Your task to perform on an android device: open app "PUBG MOBILE" (install if not already installed) and enter user name: "phenomenologically@gmail.com" and password: "artillery" Image 0: 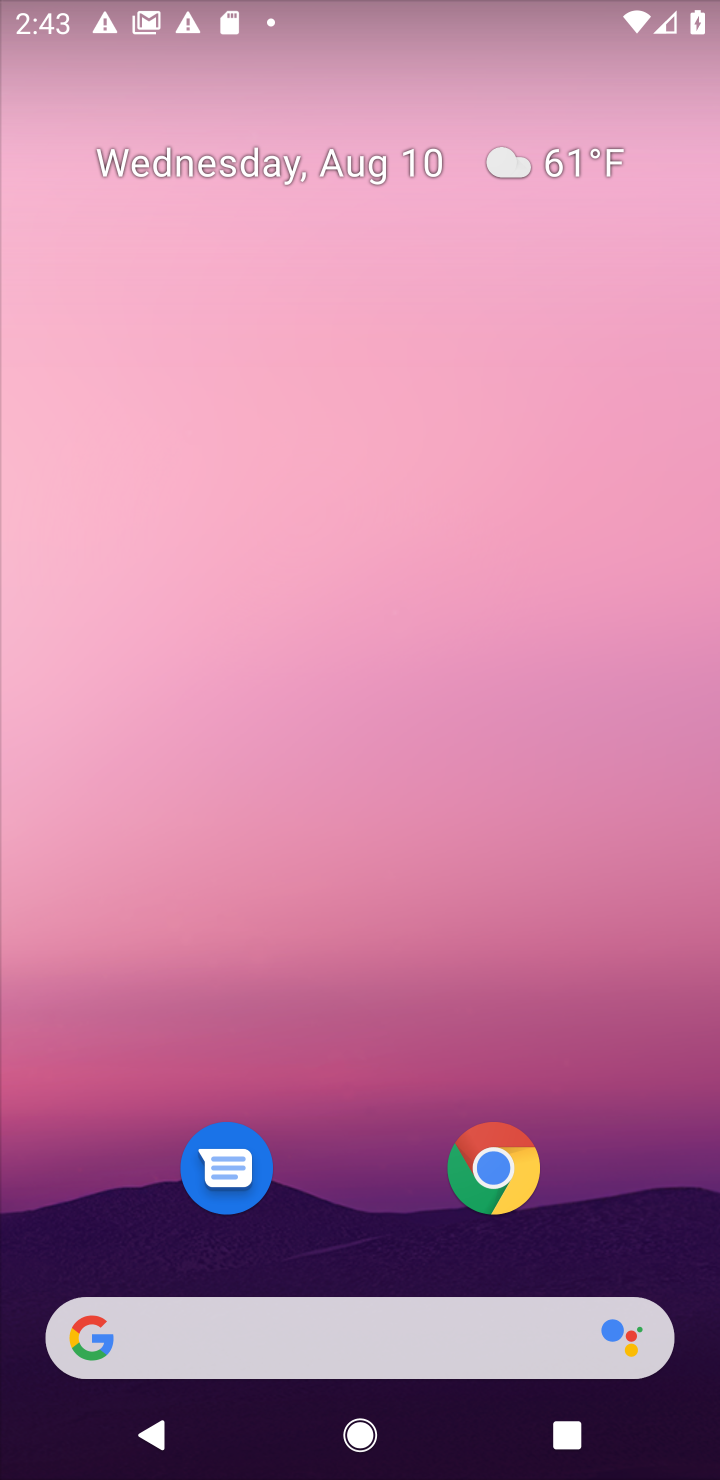
Step 0: drag from (289, 1341) to (415, 152)
Your task to perform on an android device: open app "PUBG MOBILE" (install if not already installed) and enter user name: "phenomenologically@gmail.com" and password: "artillery" Image 1: 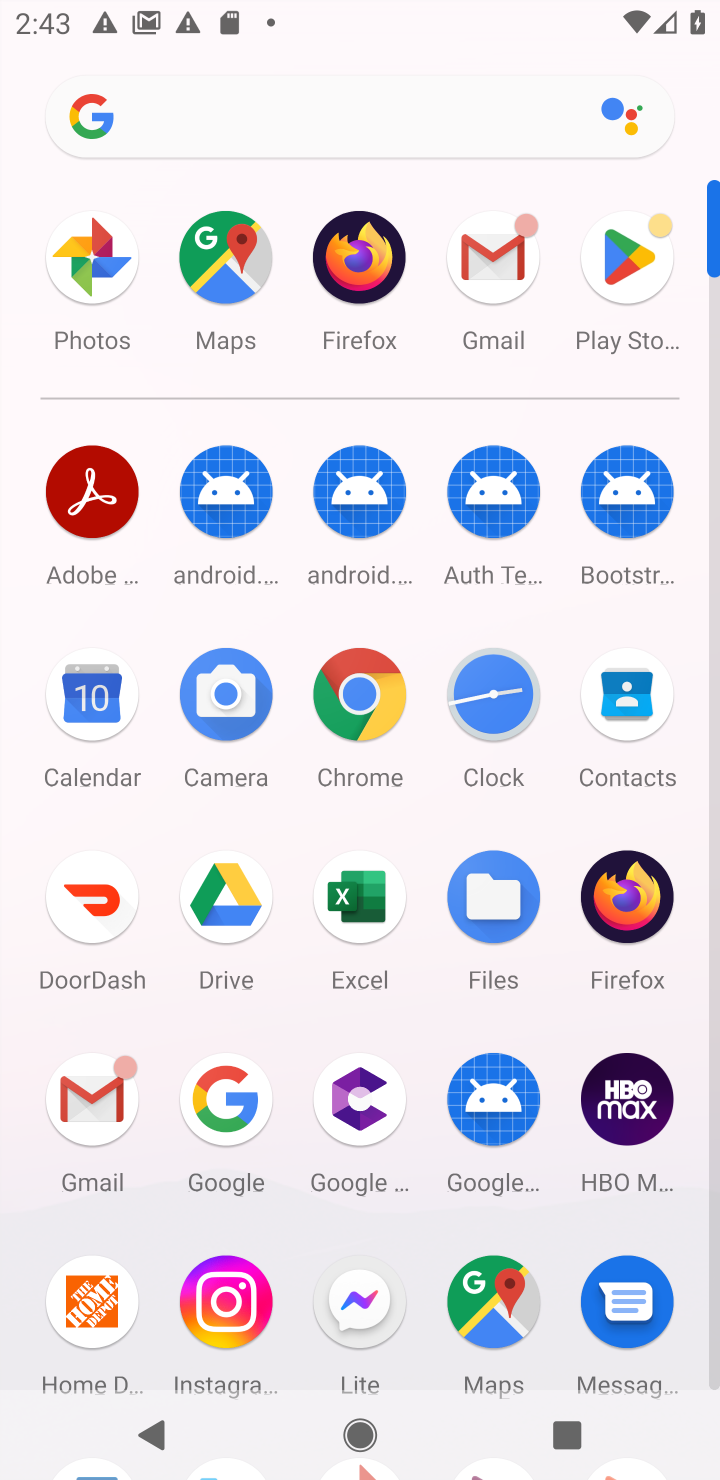
Step 1: click (632, 267)
Your task to perform on an android device: open app "PUBG MOBILE" (install if not already installed) and enter user name: "phenomenologically@gmail.com" and password: "artillery" Image 2: 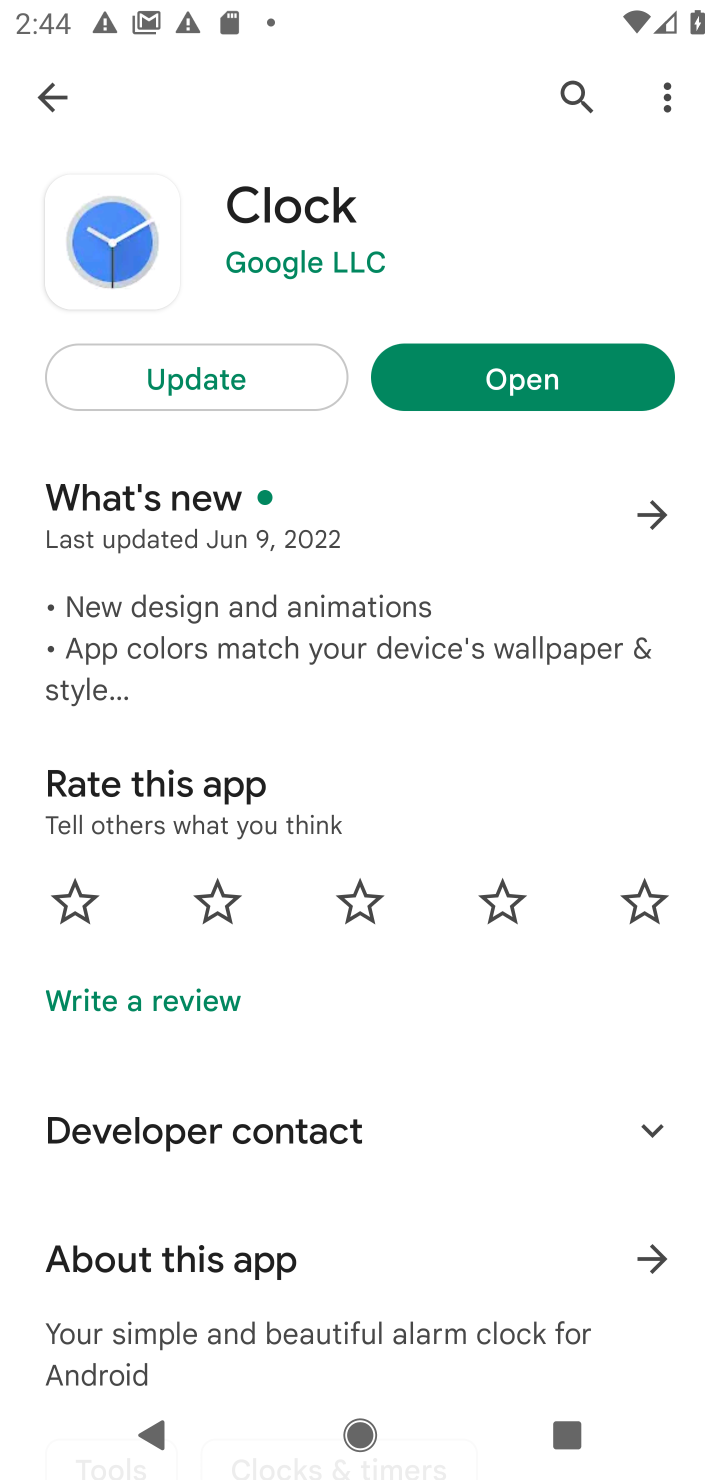
Step 2: press back button
Your task to perform on an android device: open app "PUBG MOBILE" (install if not already installed) and enter user name: "phenomenologically@gmail.com" and password: "artillery" Image 3: 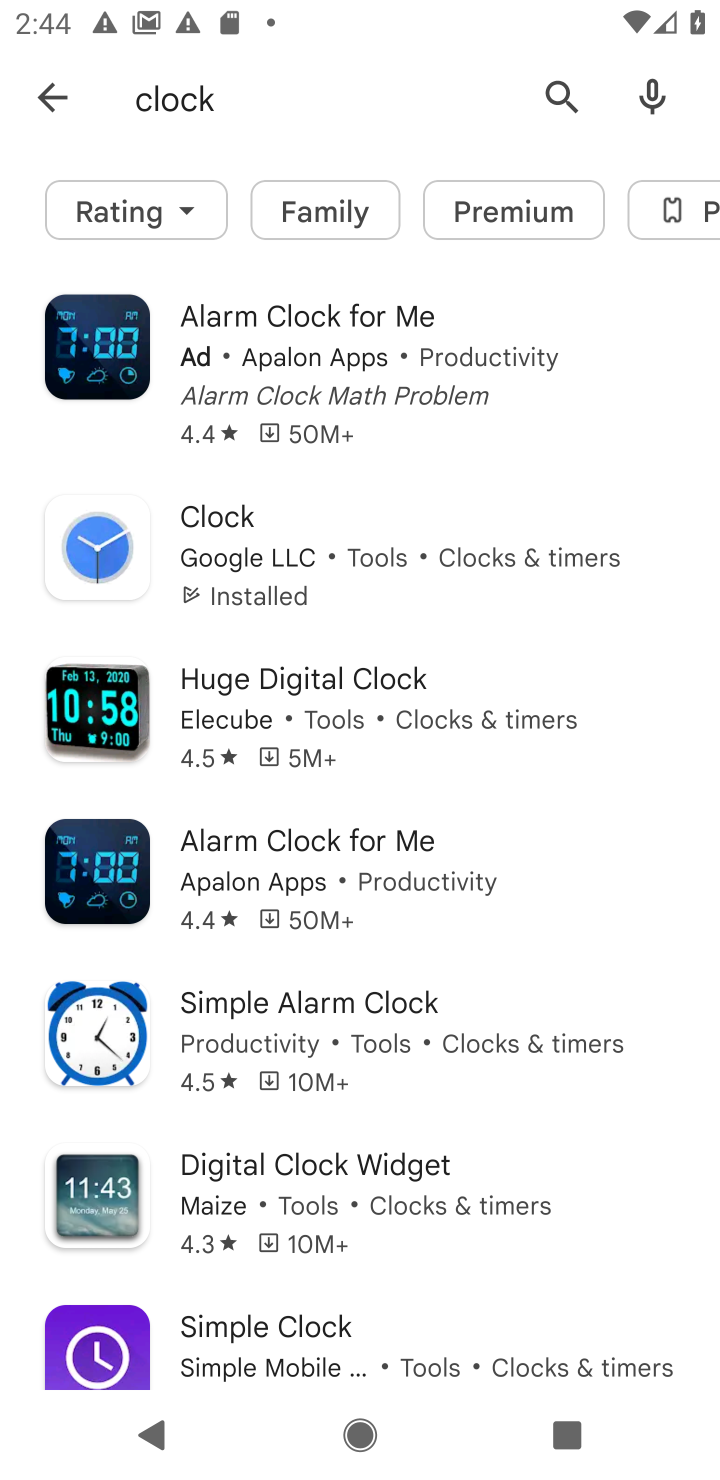
Step 3: press back button
Your task to perform on an android device: open app "PUBG MOBILE" (install if not already installed) and enter user name: "phenomenologically@gmail.com" and password: "artillery" Image 4: 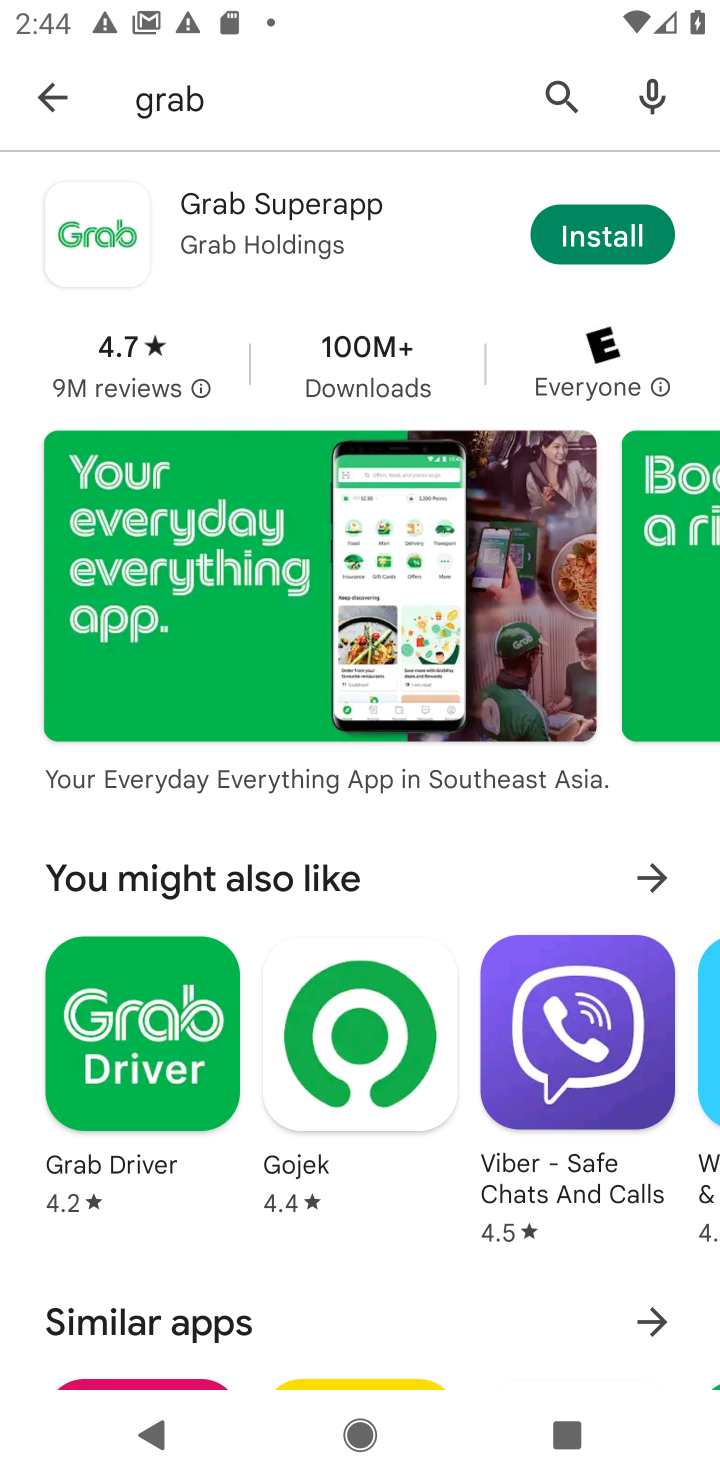
Step 4: press back button
Your task to perform on an android device: open app "PUBG MOBILE" (install if not already installed) and enter user name: "phenomenologically@gmail.com" and password: "artillery" Image 5: 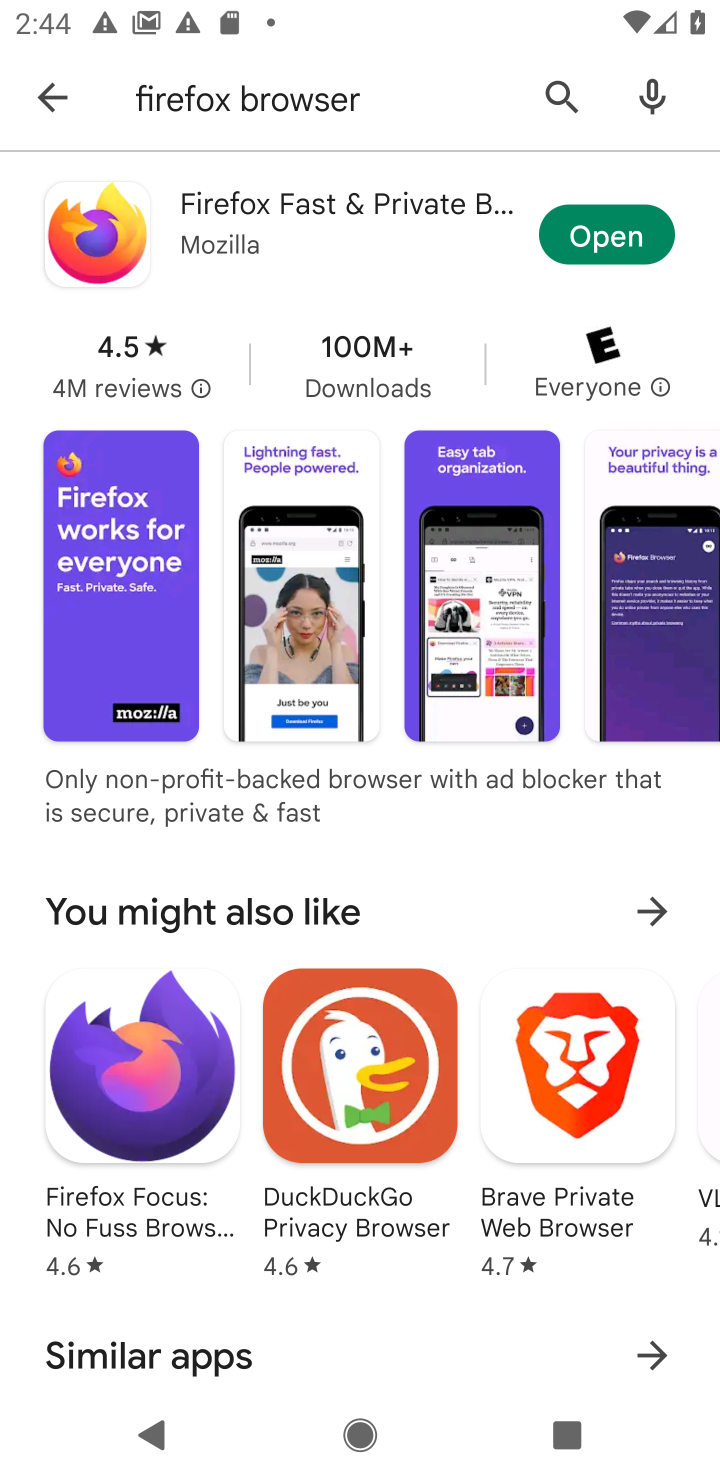
Step 5: press back button
Your task to perform on an android device: open app "PUBG MOBILE" (install if not already installed) and enter user name: "phenomenologically@gmail.com" and password: "artillery" Image 6: 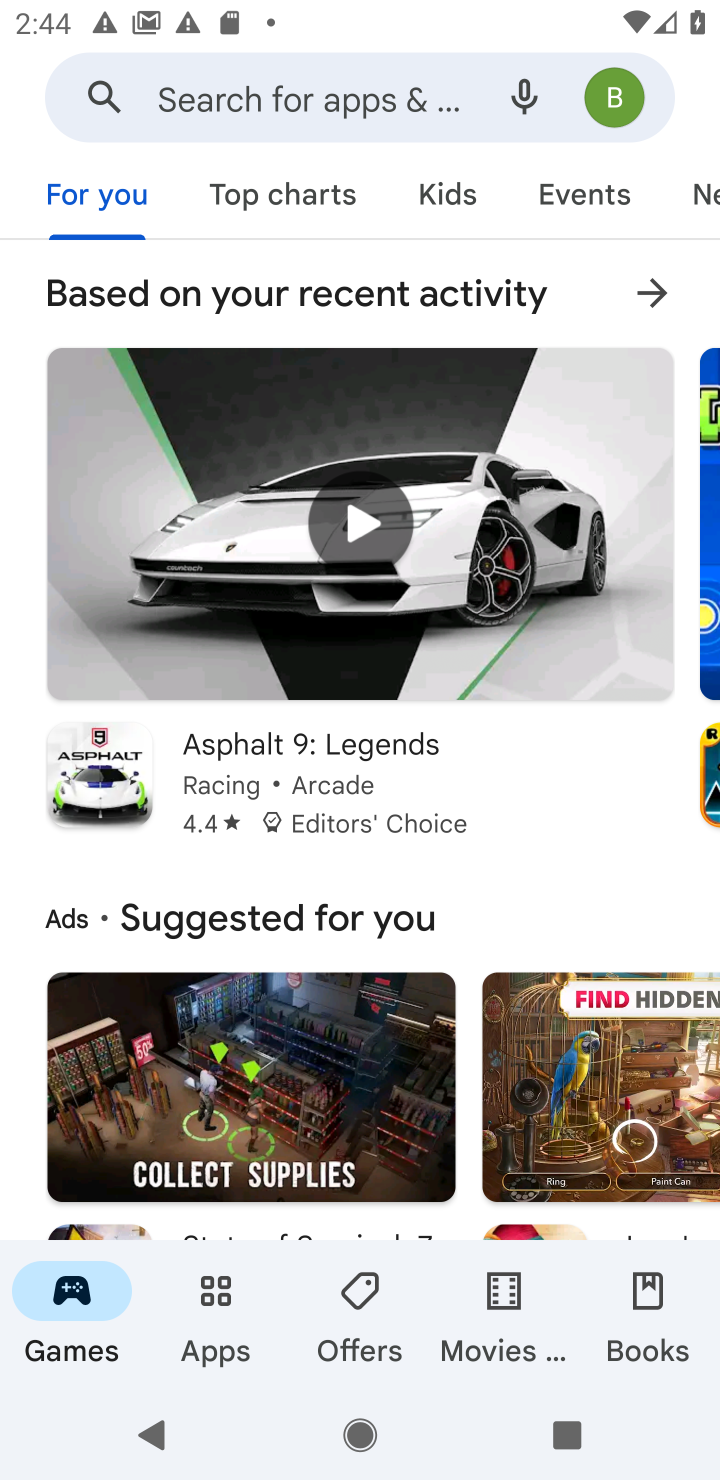
Step 6: click (300, 110)
Your task to perform on an android device: open app "PUBG MOBILE" (install if not already installed) and enter user name: "phenomenologically@gmail.com" and password: "artillery" Image 7: 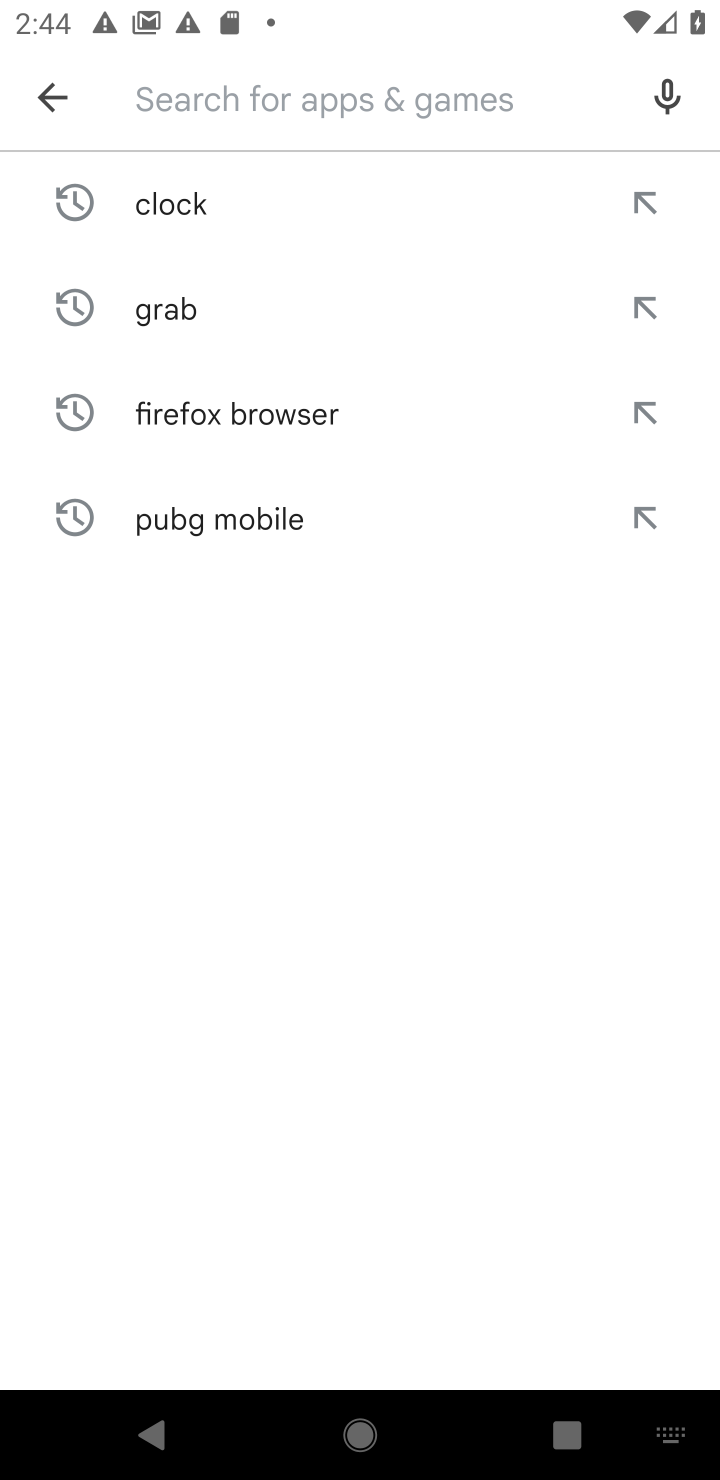
Step 7: type "PUBG MOBILE"
Your task to perform on an android device: open app "PUBG MOBILE" (install if not already installed) and enter user name: "phenomenologically@gmail.com" and password: "artillery" Image 8: 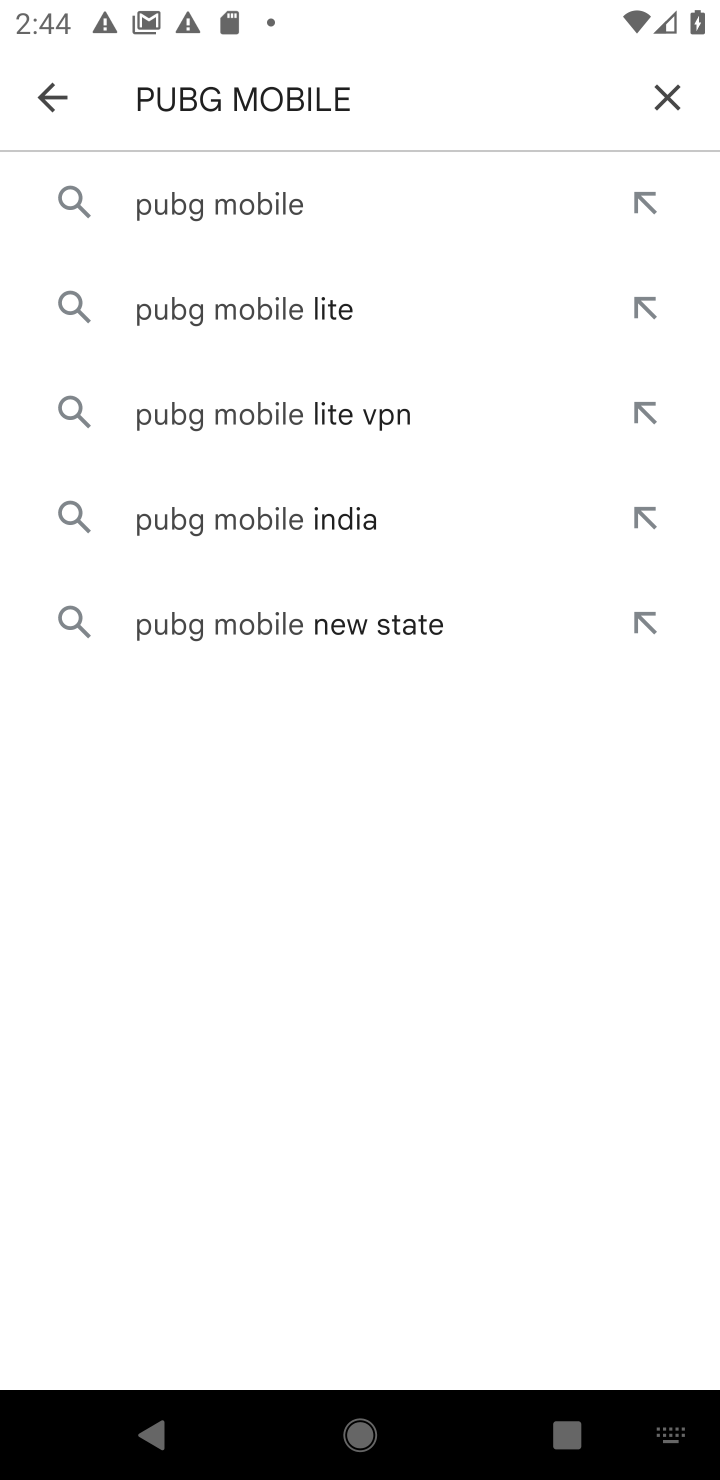
Step 8: click (203, 222)
Your task to perform on an android device: open app "PUBG MOBILE" (install if not already installed) and enter user name: "phenomenologically@gmail.com" and password: "artillery" Image 9: 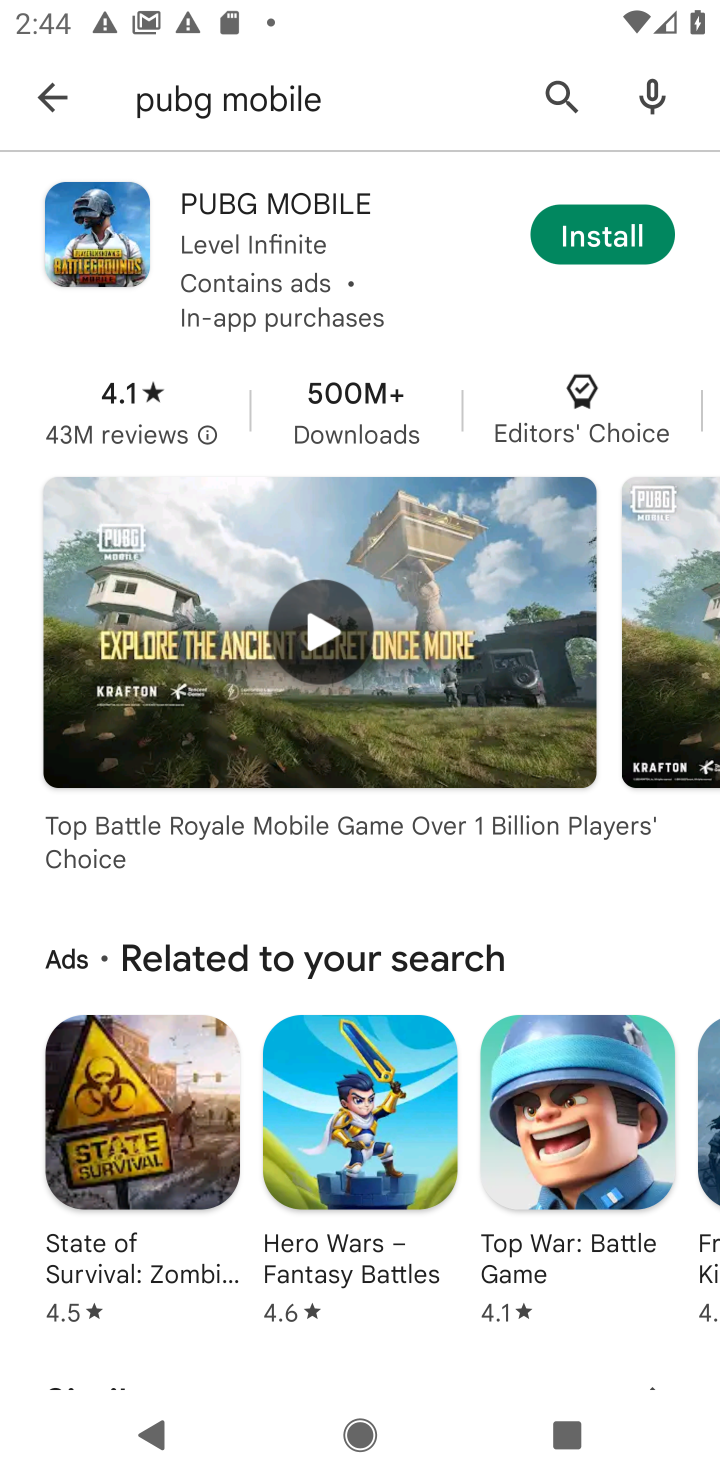
Step 9: click (602, 248)
Your task to perform on an android device: open app "PUBG MOBILE" (install if not already installed) and enter user name: "phenomenologically@gmail.com" and password: "artillery" Image 10: 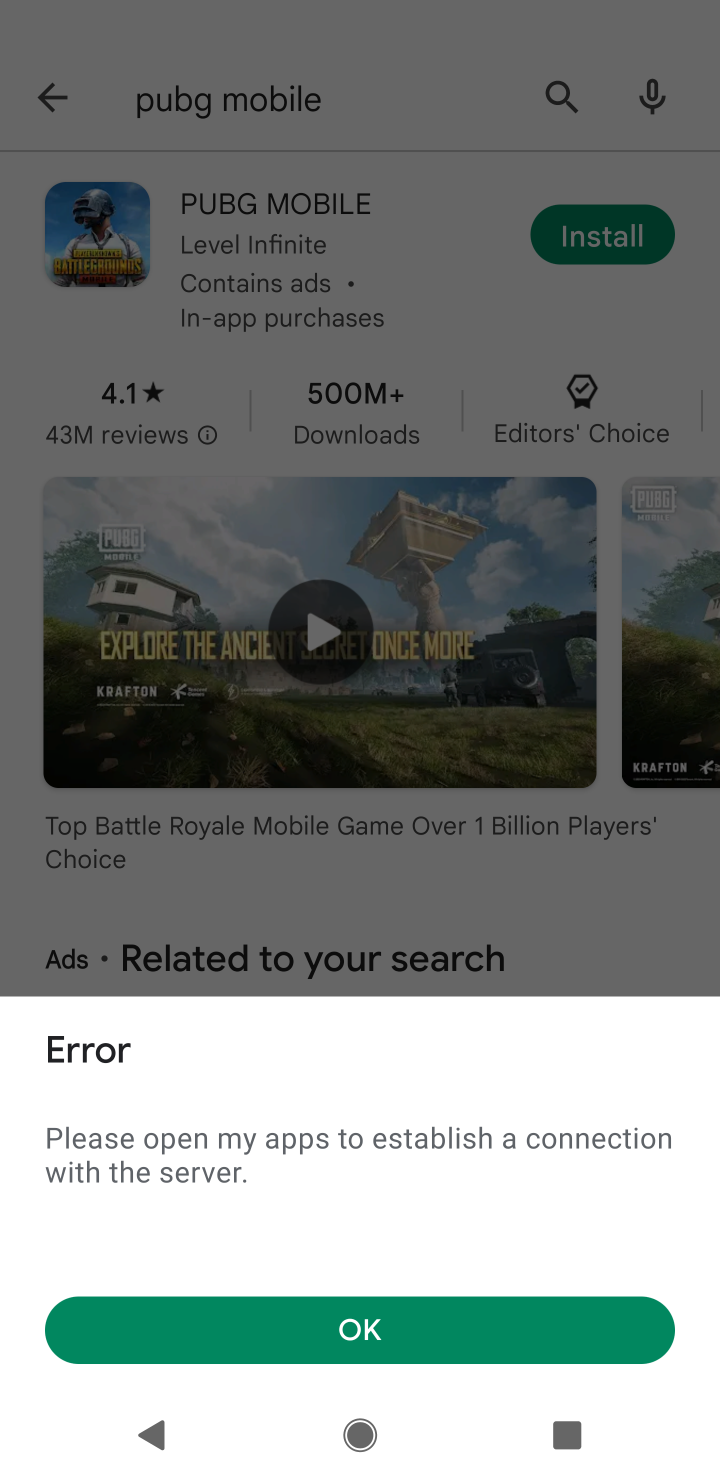
Step 10: click (379, 1323)
Your task to perform on an android device: open app "PUBG MOBILE" (install if not already installed) and enter user name: "phenomenologically@gmail.com" and password: "artillery" Image 11: 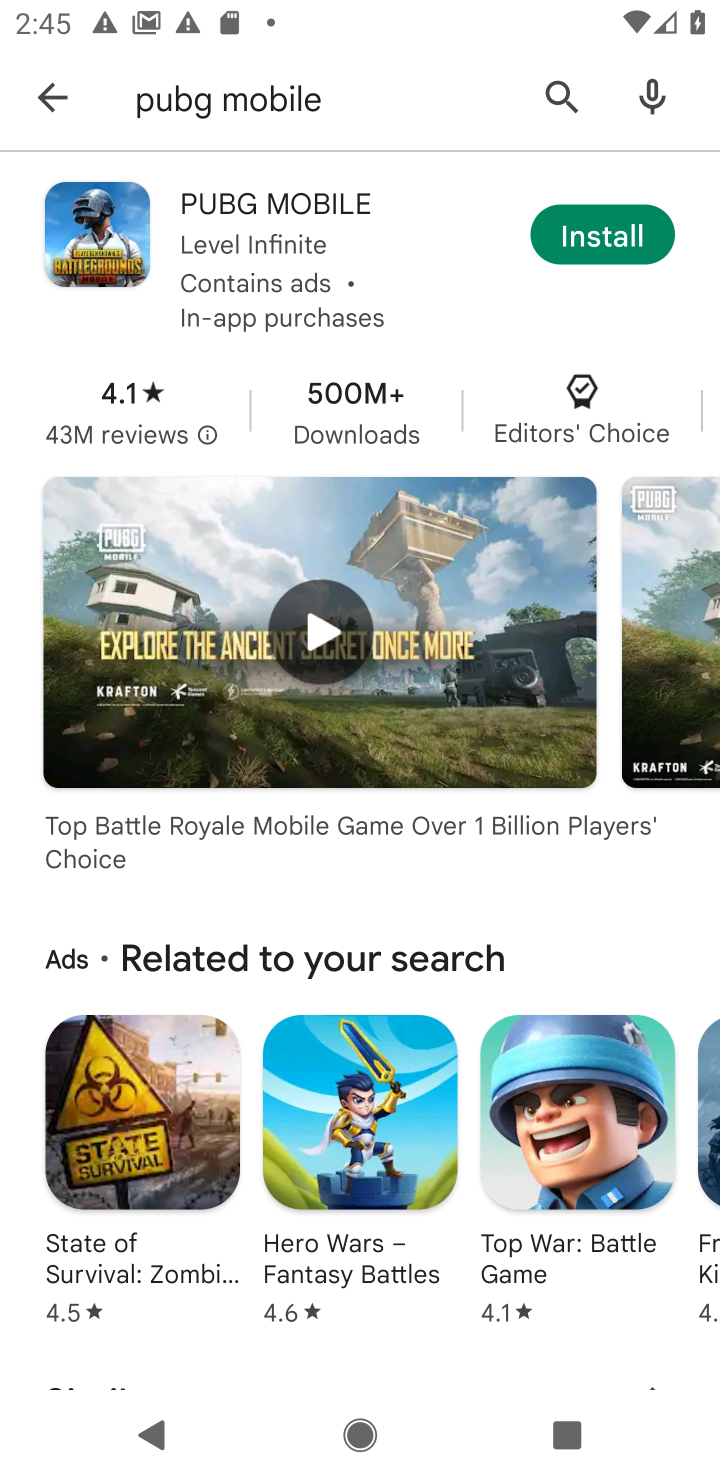
Step 11: click (587, 250)
Your task to perform on an android device: open app "PUBG MOBILE" (install if not already installed) and enter user name: "phenomenologically@gmail.com" and password: "artillery" Image 12: 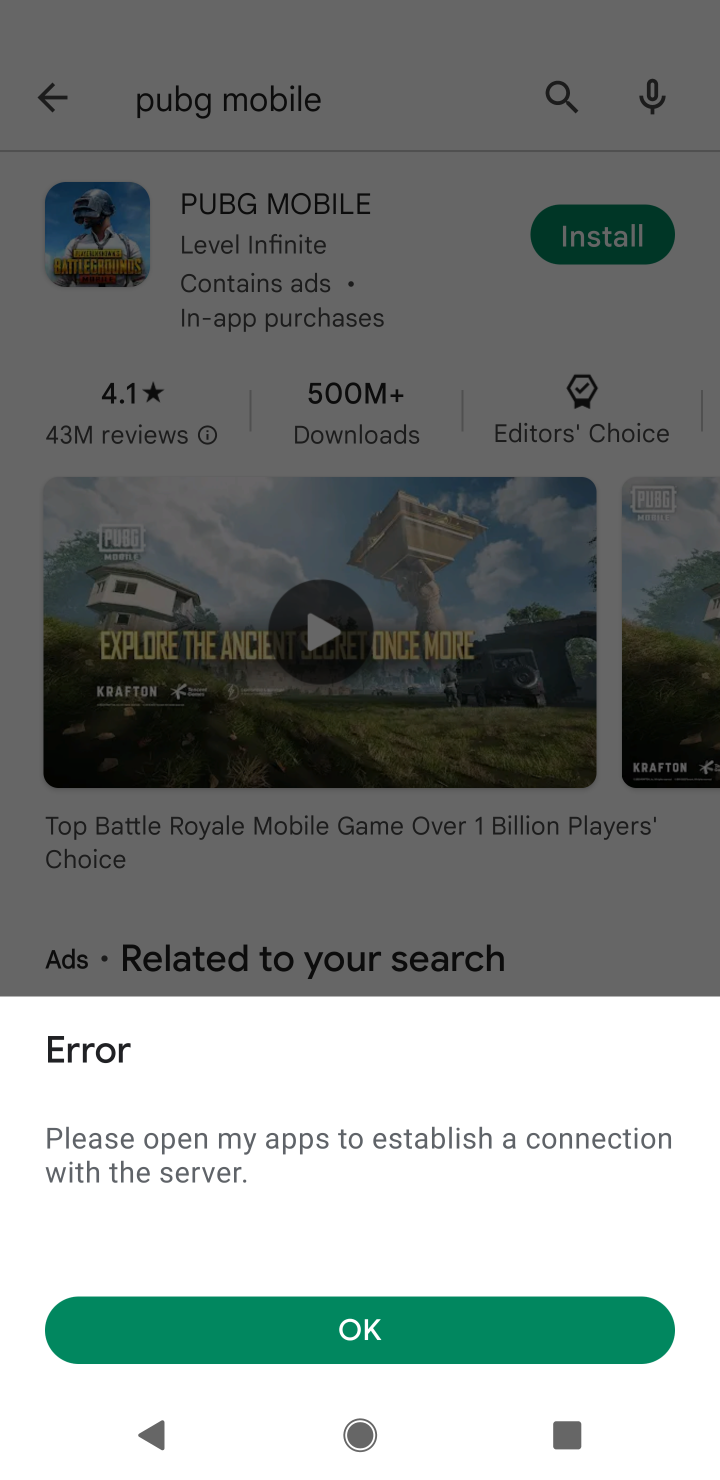
Step 12: click (357, 1333)
Your task to perform on an android device: open app "PUBG MOBILE" (install if not already installed) and enter user name: "phenomenologically@gmail.com" and password: "artillery" Image 13: 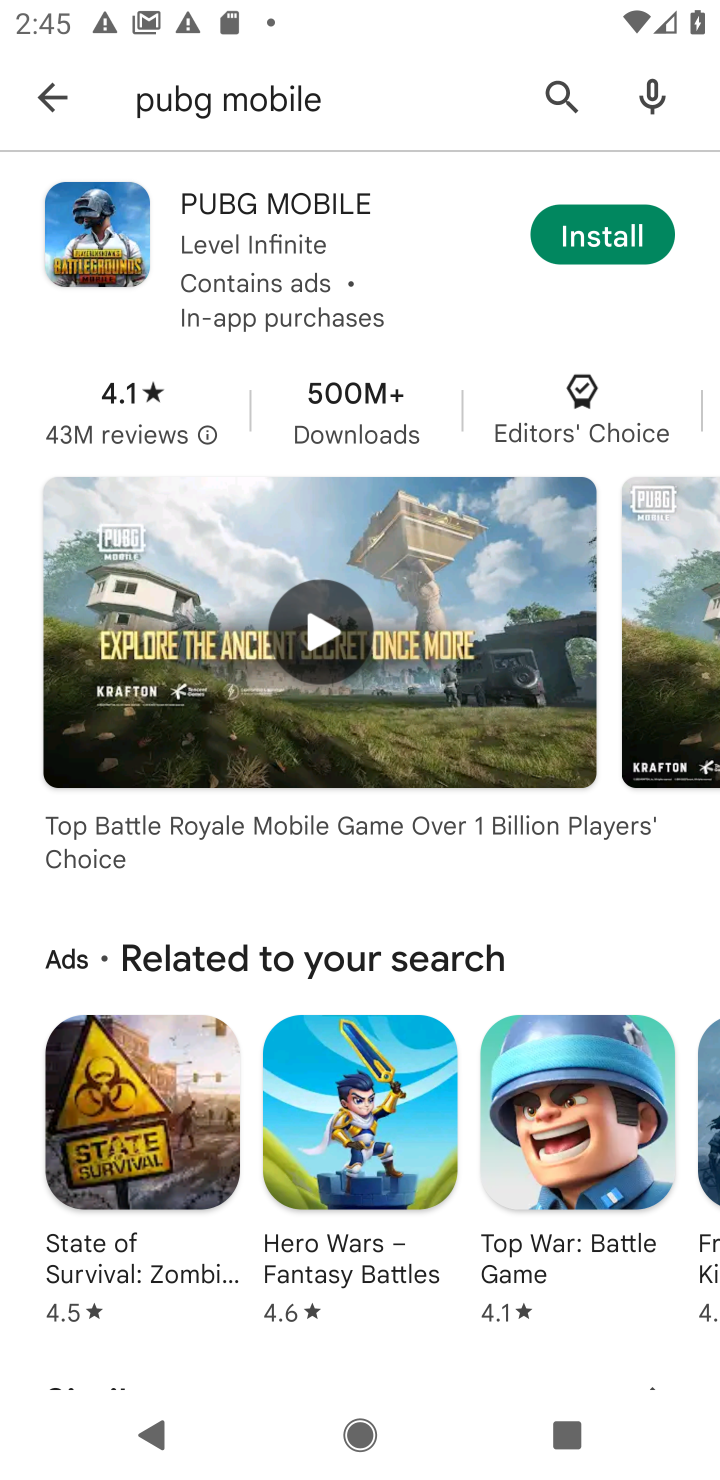
Step 13: task complete